Your task to perform on an android device: How much does a 3 bedroom apartment rent for in San Francisco? Image 0: 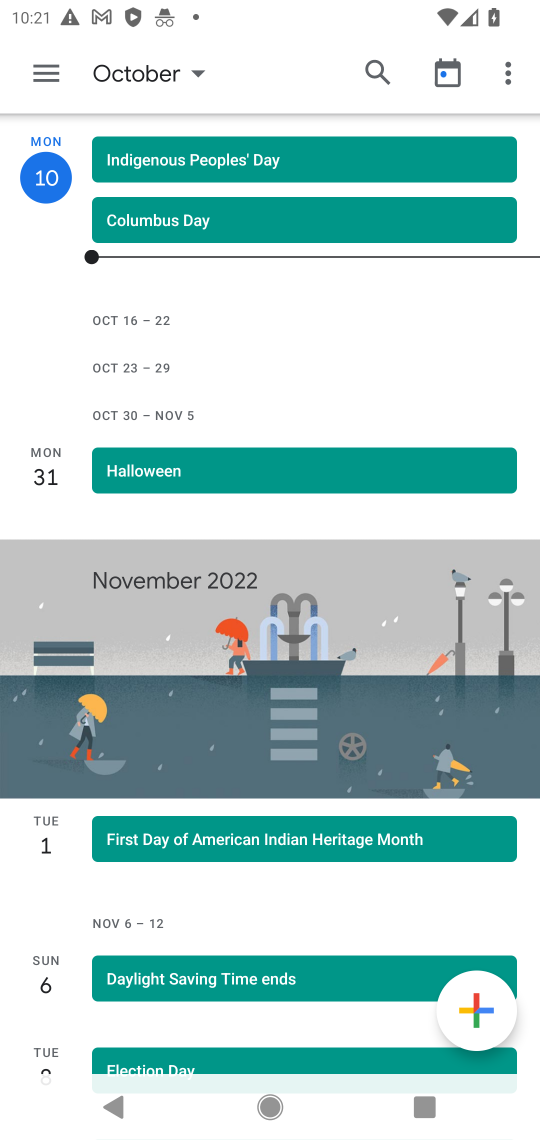
Step 0: press home button
Your task to perform on an android device: How much does a 3 bedroom apartment rent for in San Francisco? Image 1: 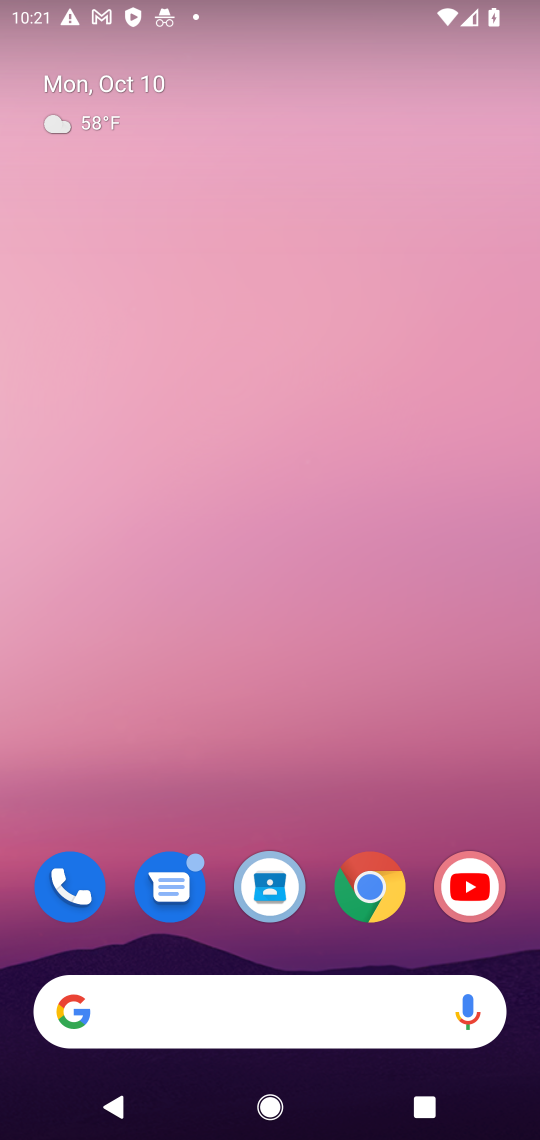
Step 1: drag from (242, 758) to (242, 403)
Your task to perform on an android device: How much does a 3 bedroom apartment rent for in San Francisco? Image 2: 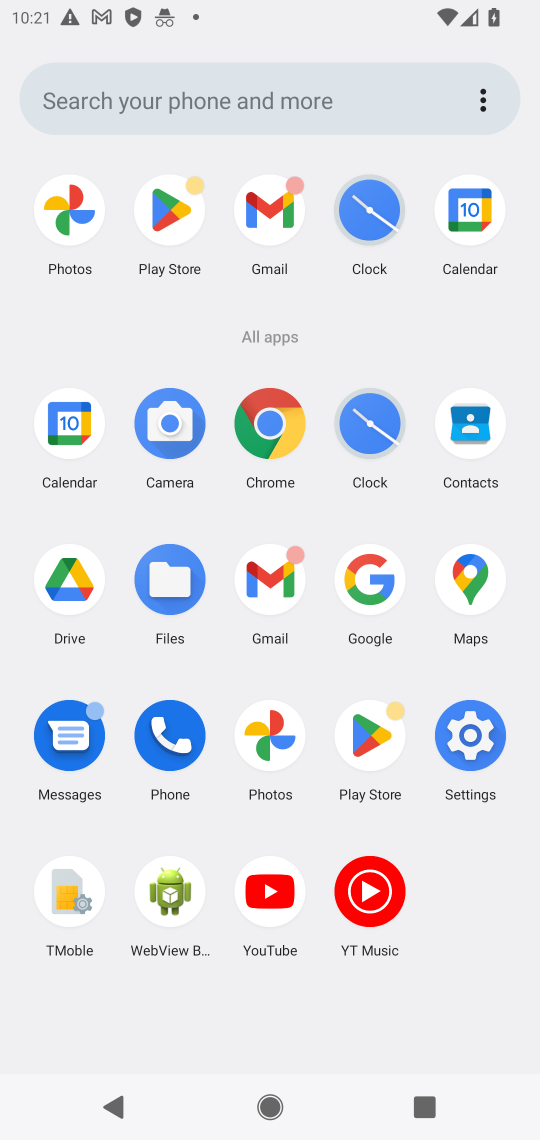
Step 2: click (361, 569)
Your task to perform on an android device: How much does a 3 bedroom apartment rent for in San Francisco? Image 3: 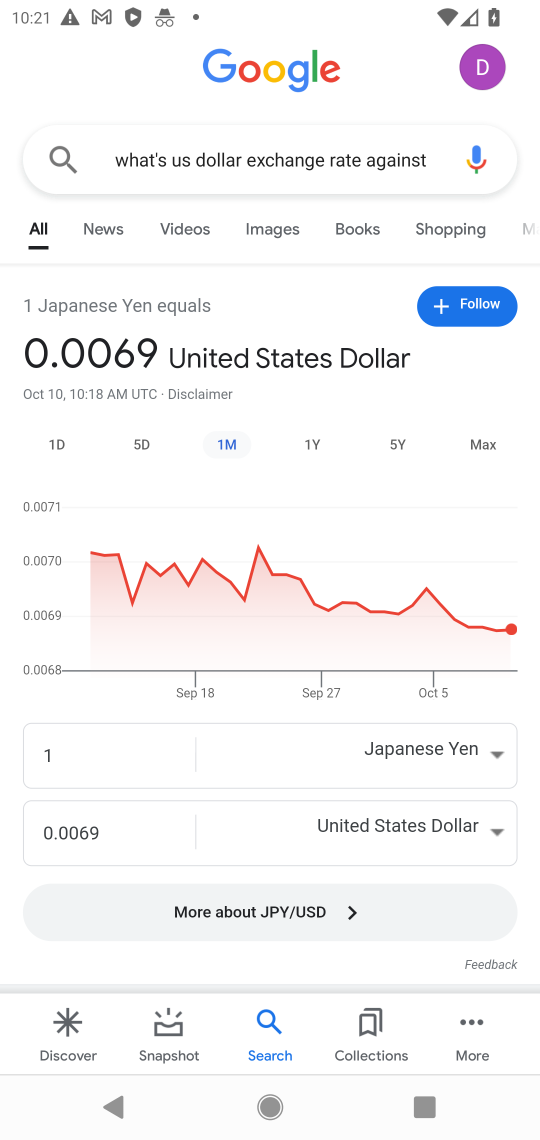
Step 3: click (232, 154)
Your task to perform on an android device: How much does a 3 bedroom apartment rent for in San Francisco? Image 4: 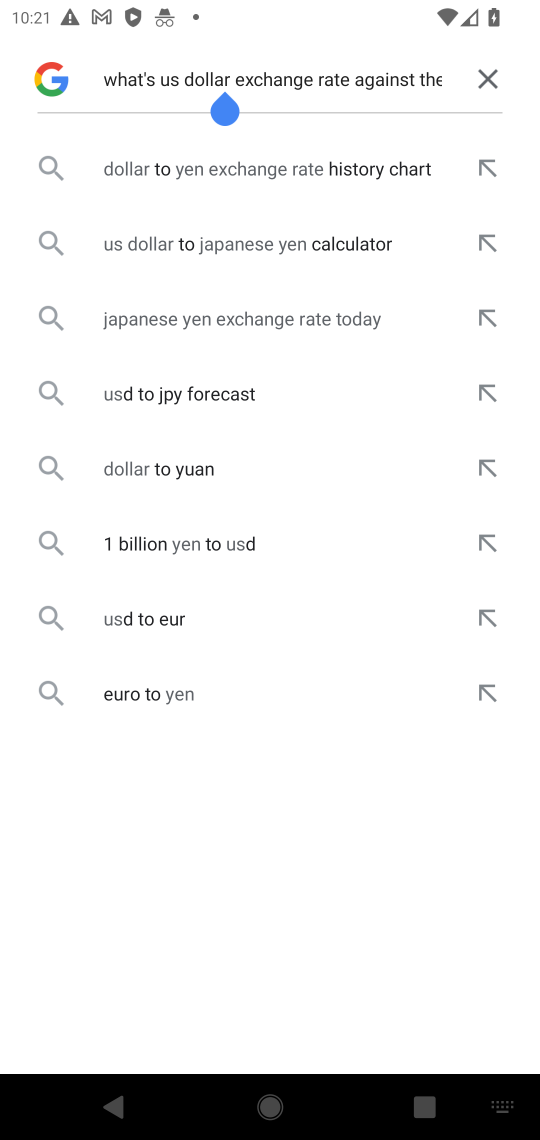
Step 4: click (486, 64)
Your task to perform on an android device: How much does a 3 bedroom apartment rent for in San Francisco? Image 5: 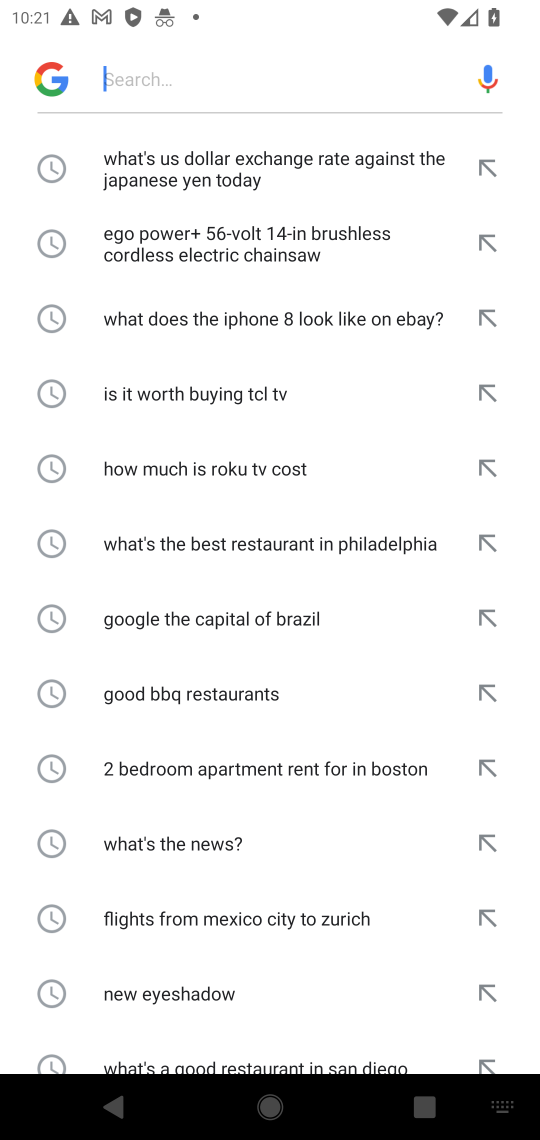
Step 5: click (180, 63)
Your task to perform on an android device: How much does a 3 bedroom apartment rent for in San Francisco? Image 6: 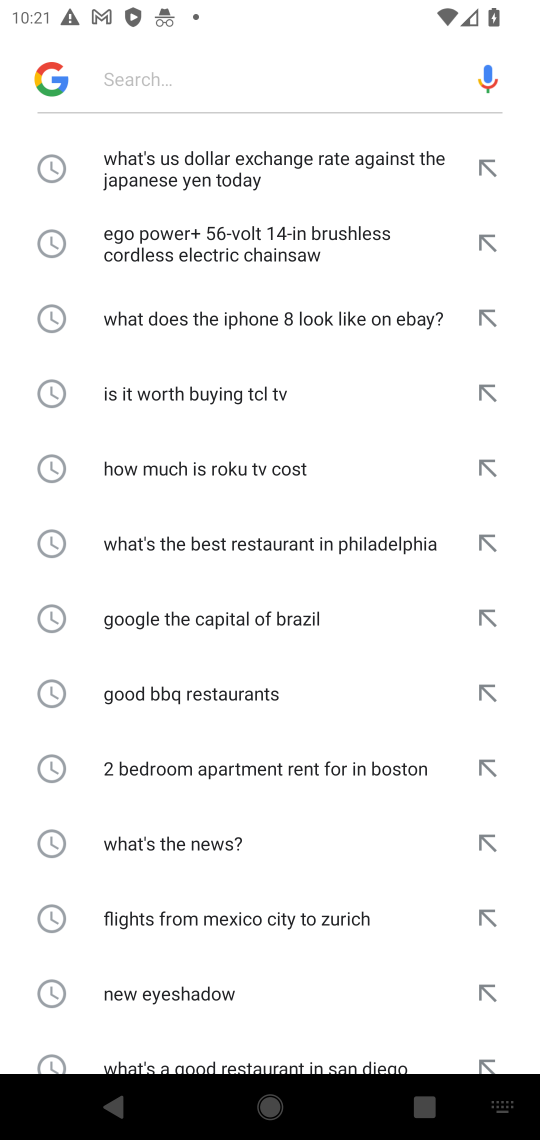
Step 6: type "How much does a 3 bedroom apartment rent for in San Francisco? "
Your task to perform on an android device: How much does a 3 bedroom apartment rent for in San Francisco? Image 7: 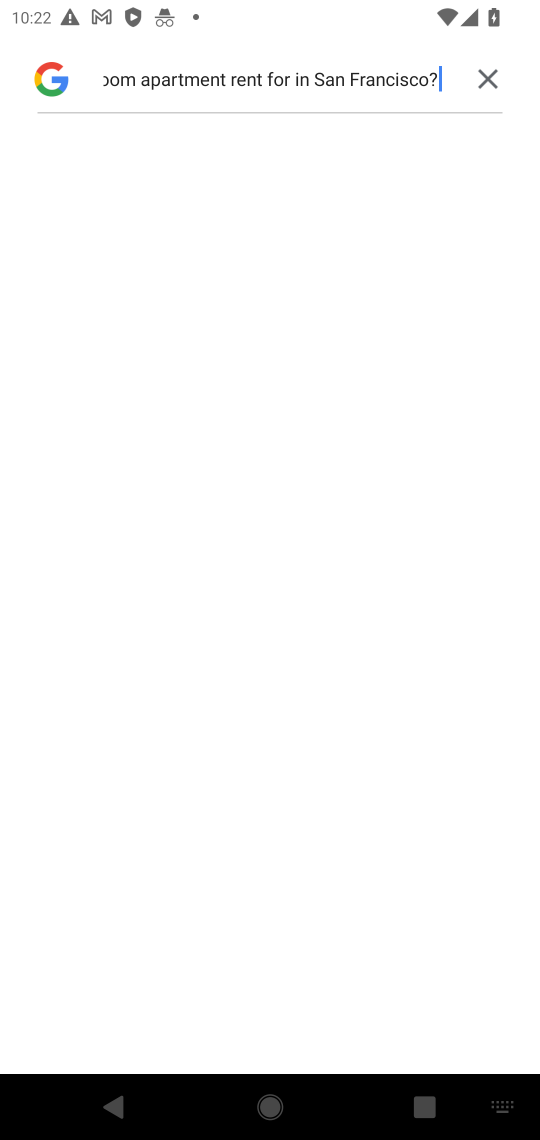
Step 7: click (484, 67)
Your task to perform on an android device: How much does a 3 bedroom apartment rent for in San Francisco? Image 8: 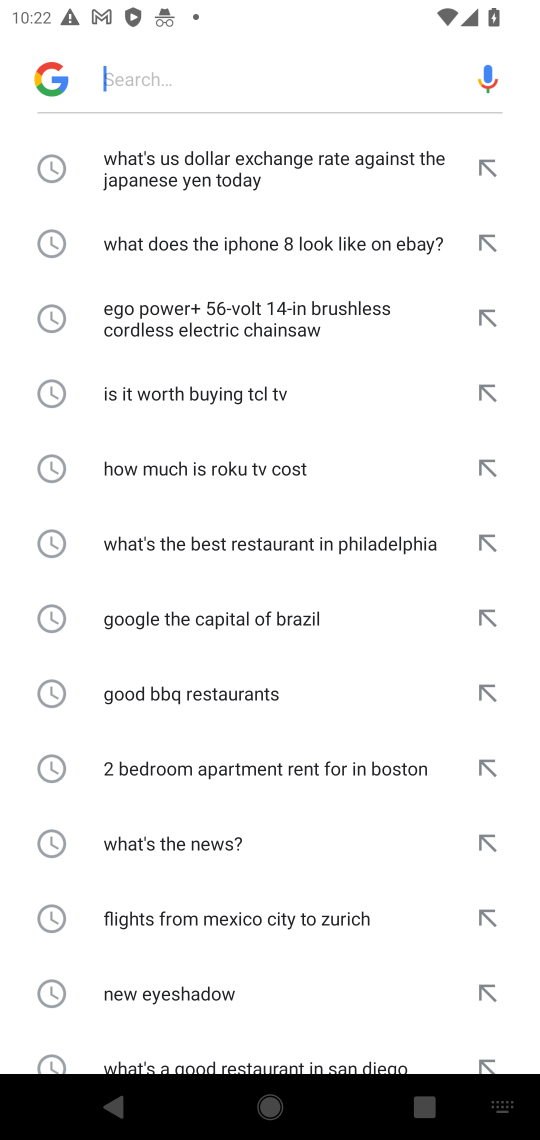
Step 8: click (267, 89)
Your task to perform on an android device: How much does a 3 bedroom apartment rent for in San Francisco? Image 9: 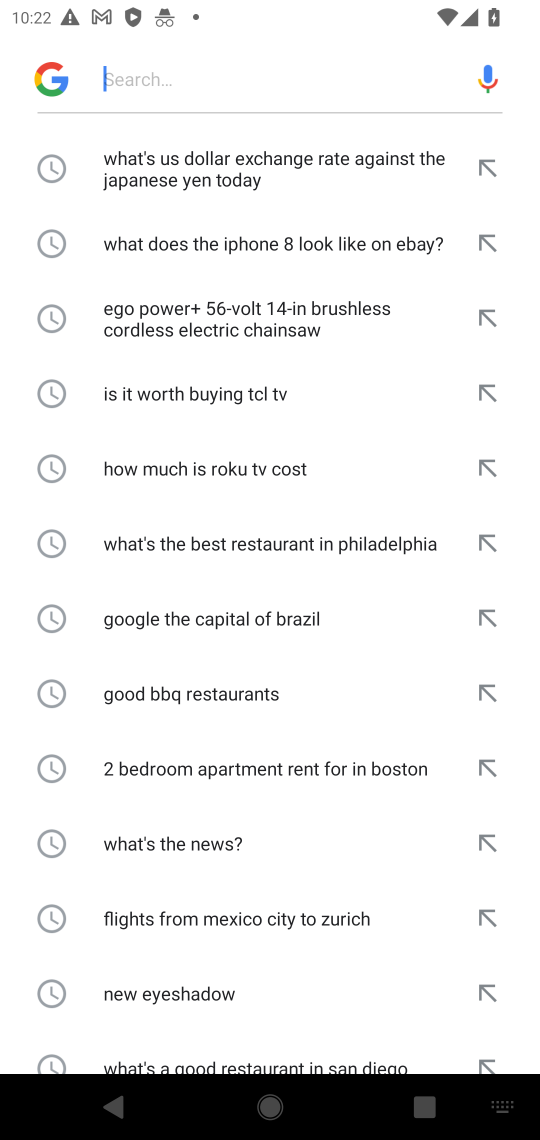
Step 9: click (267, 65)
Your task to perform on an android device: How much does a 3 bedroom apartment rent for in San Francisco? Image 10: 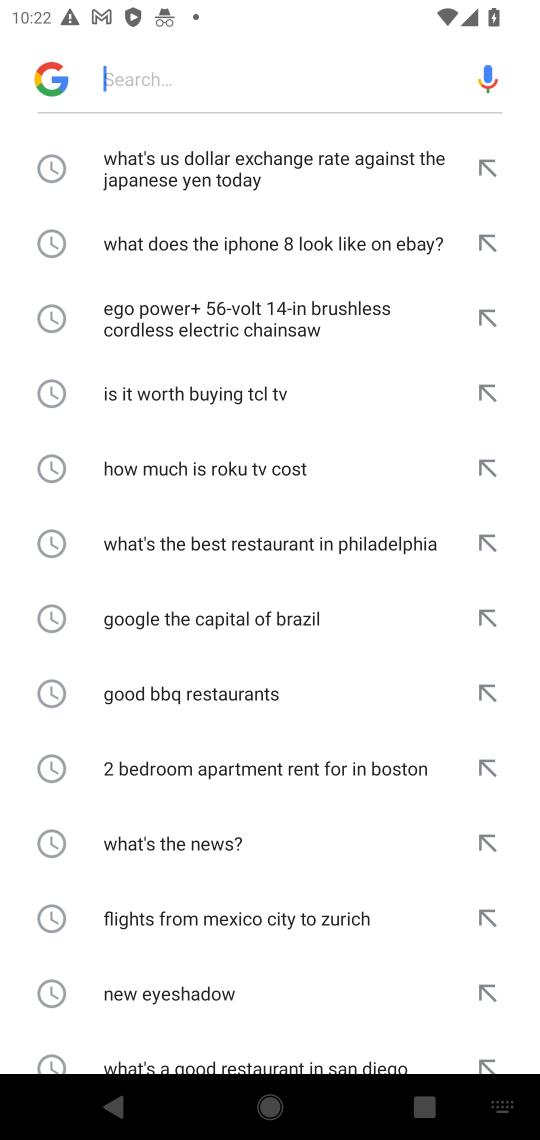
Step 10: type "How much does a 3 bedroom apartment rent for in San Francisco "
Your task to perform on an android device: How much does a 3 bedroom apartment rent for in San Francisco? Image 11: 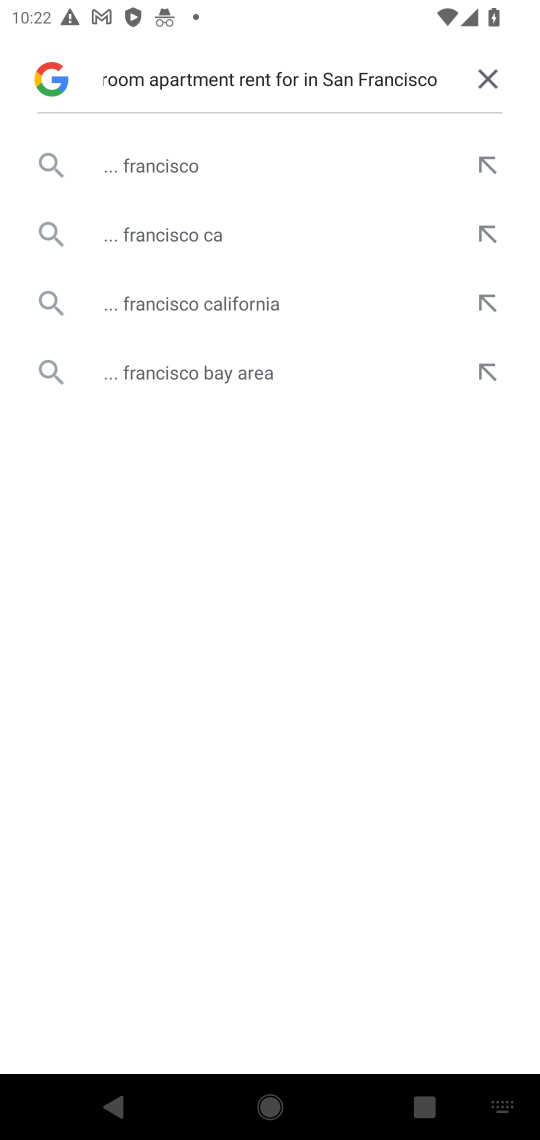
Step 11: click (184, 167)
Your task to perform on an android device: How much does a 3 bedroom apartment rent for in San Francisco? Image 12: 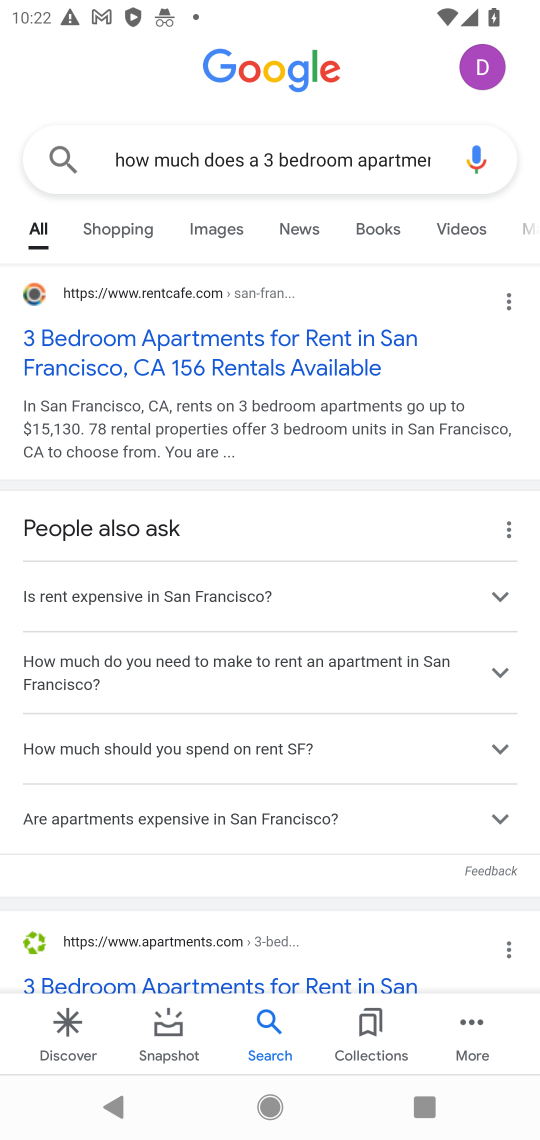
Step 12: click (110, 332)
Your task to perform on an android device: How much does a 3 bedroom apartment rent for in San Francisco? Image 13: 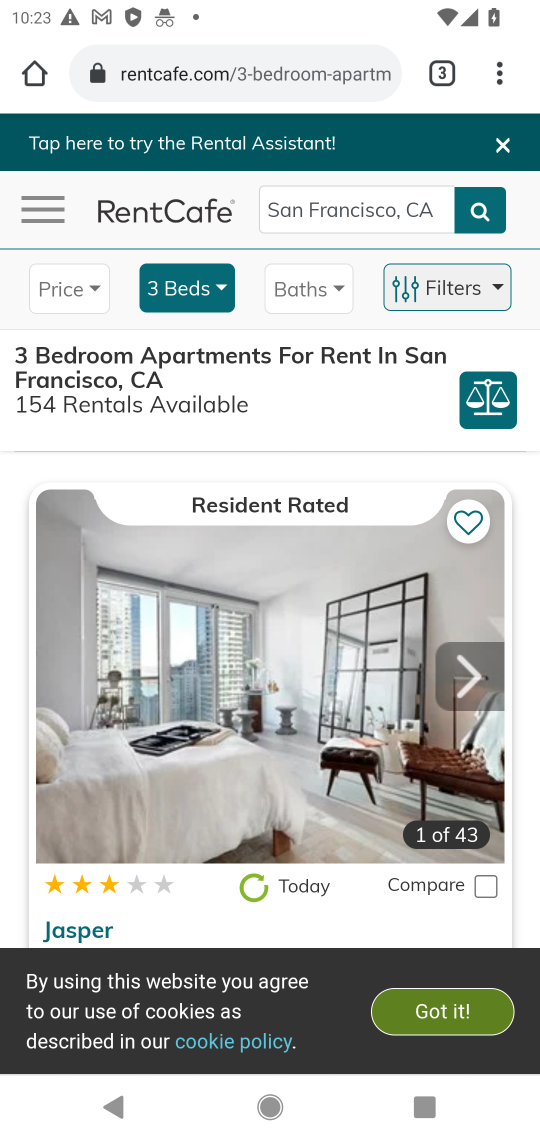
Step 13: task complete